Your task to perform on an android device: open a bookmark in the chrome app Image 0: 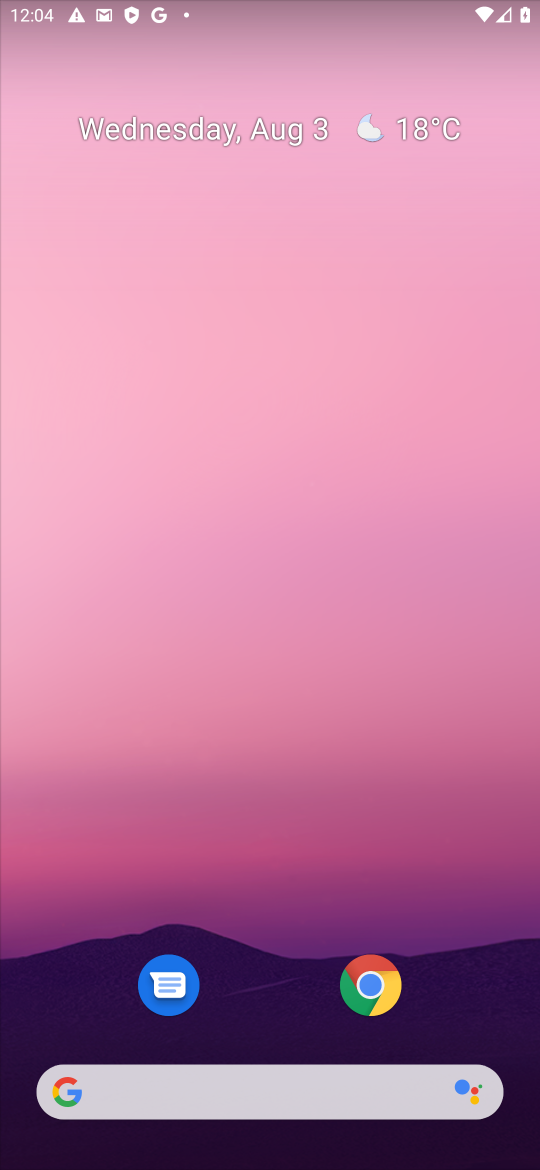
Step 0: click (404, 975)
Your task to perform on an android device: open a bookmark in the chrome app Image 1: 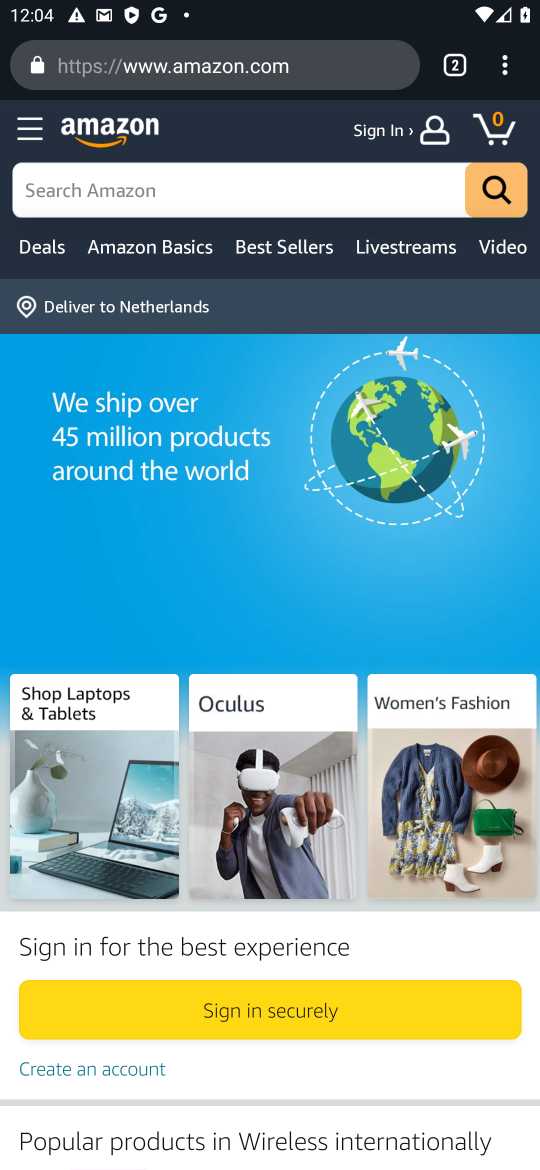
Step 1: task complete